Your task to perform on an android device: toggle notifications settings in the gmail app Image 0: 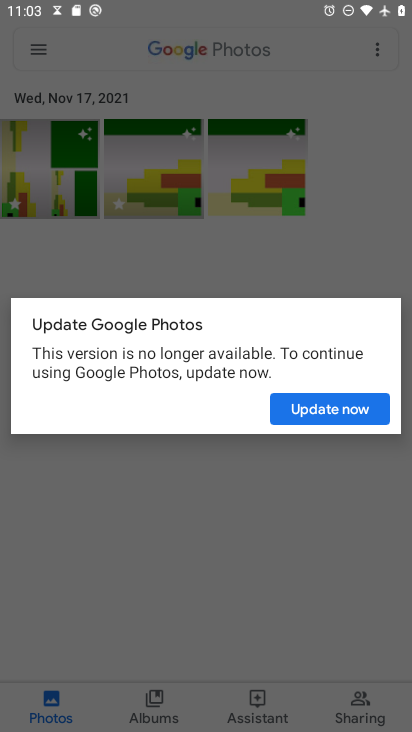
Step 0: press home button
Your task to perform on an android device: toggle notifications settings in the gmail app Image 1: 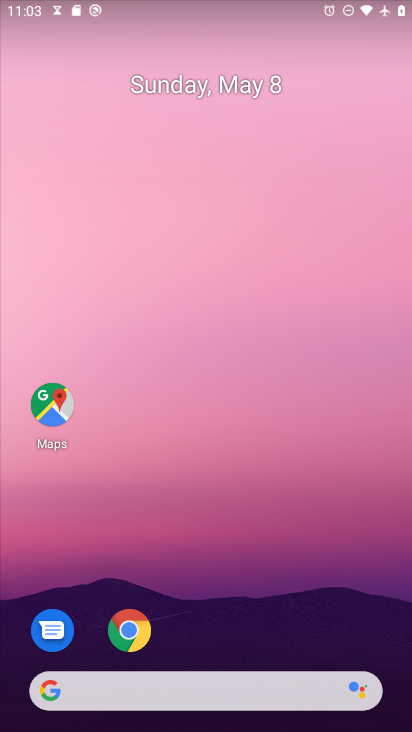
Step 1: drag from (218, 691) to (340, 106)
Your task to perform on an android device: toggle notifications settings in the gmail app Image 2: 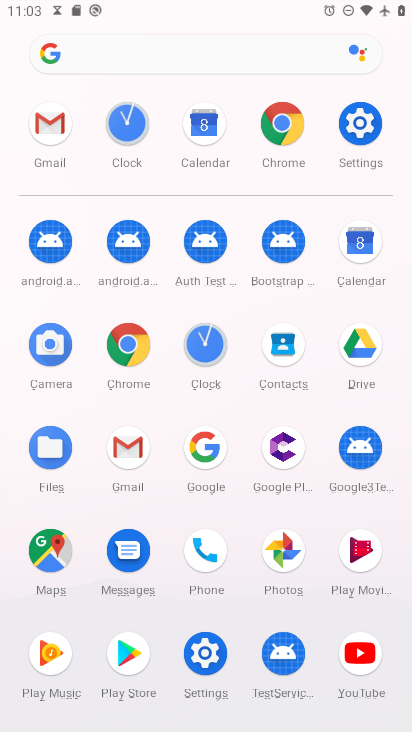
Step 2: click (53, 137)
Your task to perform on an android device: toggle notifications settings in the gmail app Image 3: 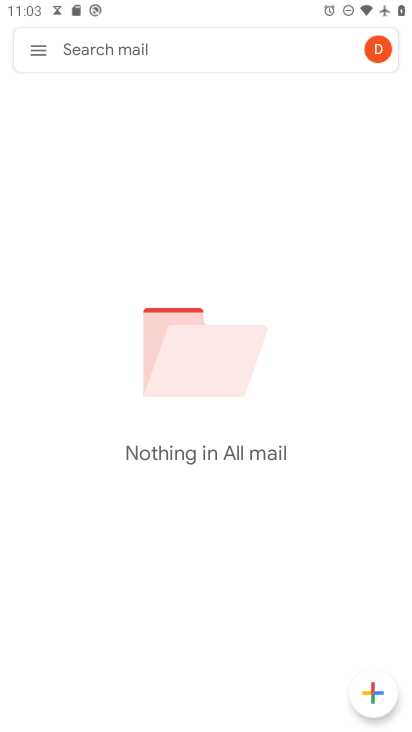
Step 3: click (39, 52)
Your task to perform on an android device: toggle notifications settings in the gmail app Image 4: 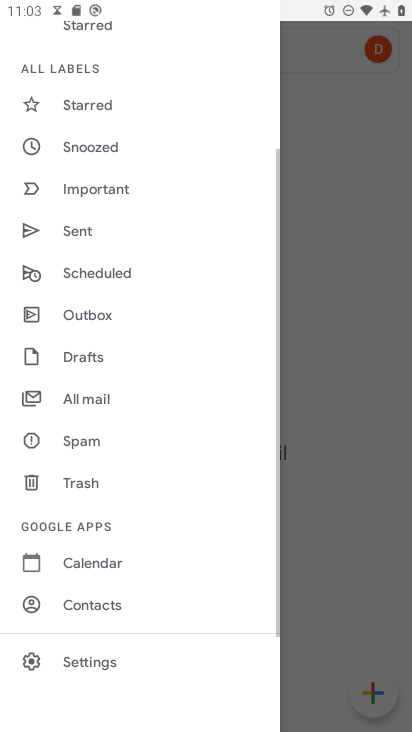
Step 4: click (87, 659)
Your task to perform on an android device: toggle notifications settings in the gmail app Image 5: 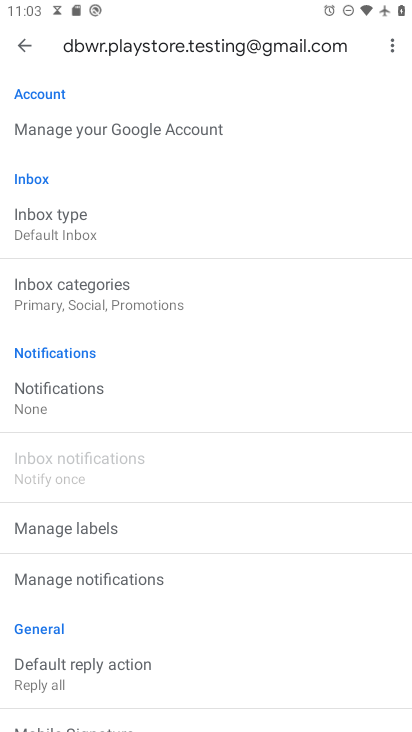
Step 5: click (68, 390)
Your task to perform on an android device: toggle notifications settings in the gmail app Image 6: 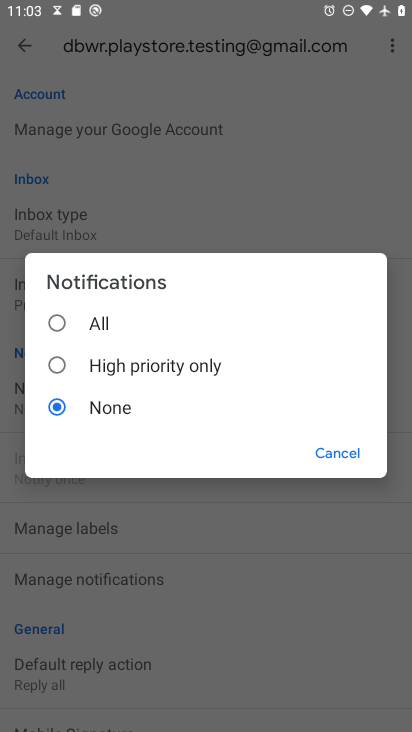
Step 6: click (56, 322)
Your task to perform on an android device: toggle notifications settings in the gmail app Image 7: 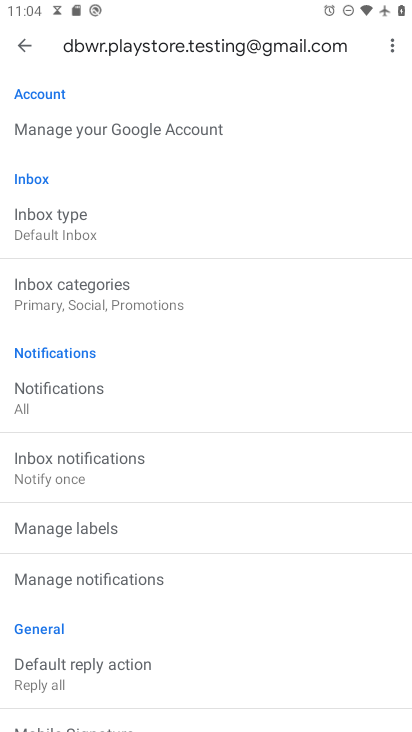
Step 7: task complete